Your task to perform on an android device: What's on my calendar today? Image 0: 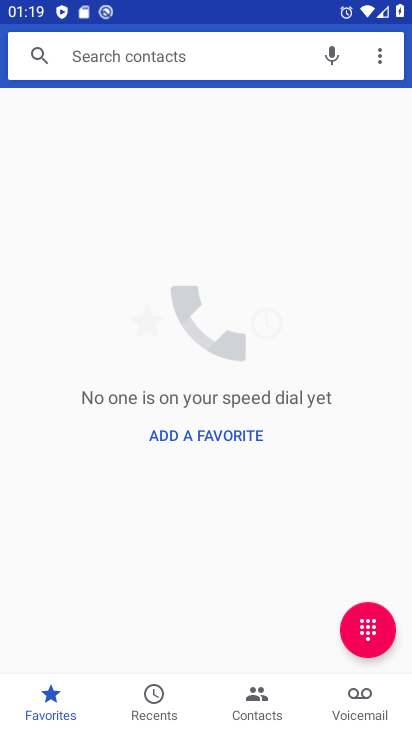
Step 0: press home button
Your task to perform on an android device: What's on my calendar today? Image 1: 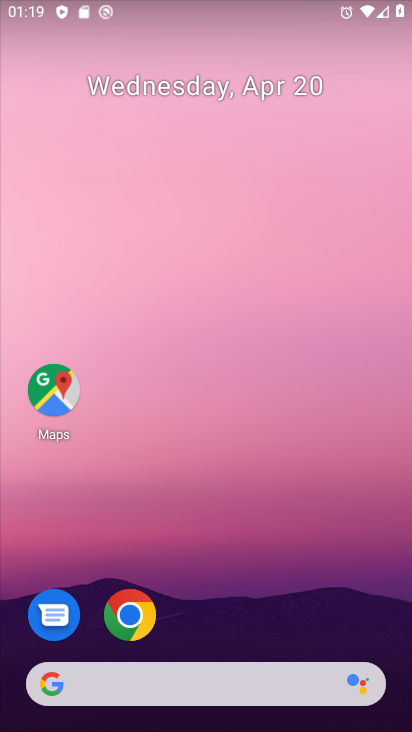
Step 1: drag from (396, 186) to (390, 105)
Your task to perform on an android device: What's on my calendar today? Image 2: 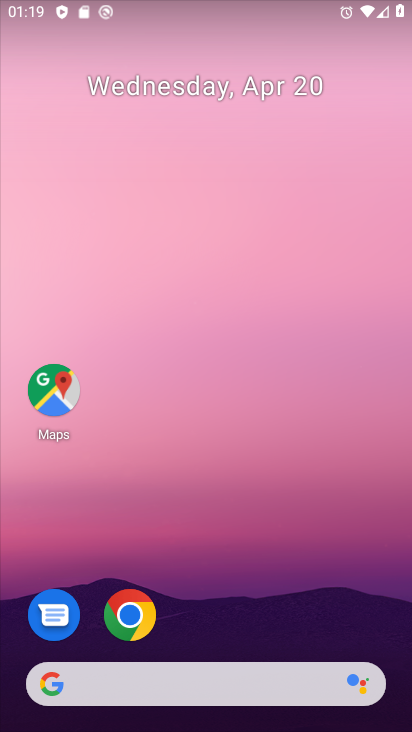
Step 2: drag from (350, 497) to (337, 43)
Your task to perform on an android device: What's on my calendar today? Image 3: 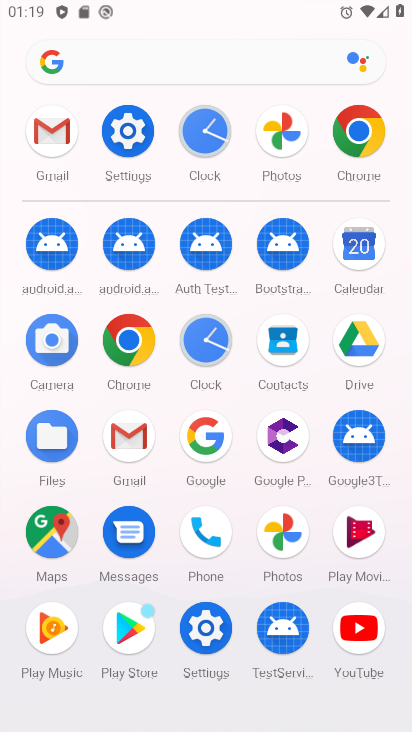
Step 3: click (360, 245)
Your task to perform on an android device: What's on my calendar today? Image 4: 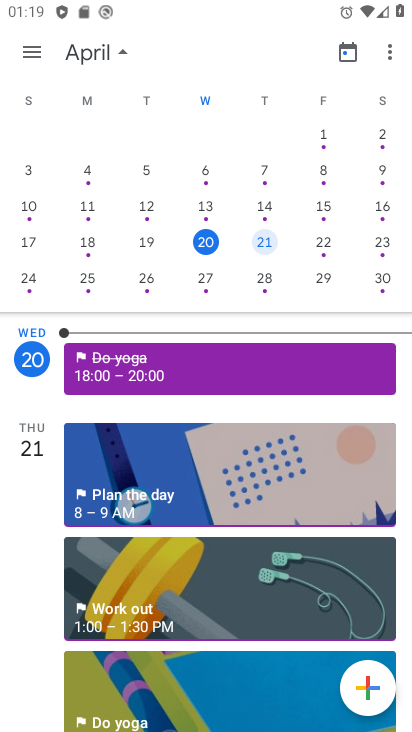
Step 4: click (203, 239)
Your task to perform on an android device: What's on my calendar today? Image 5: 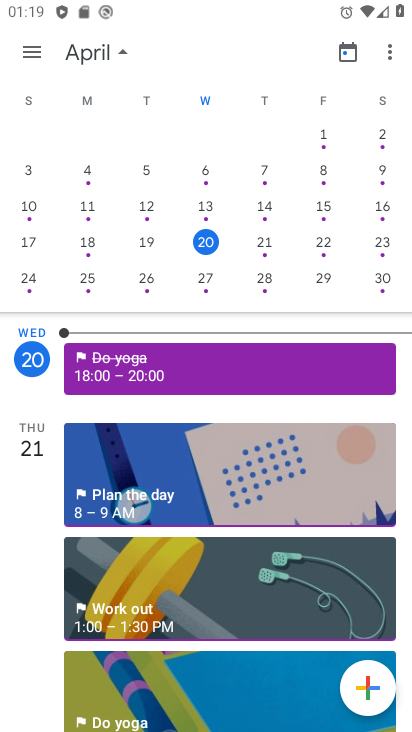
Step 5: click (203, 239)
Your task to perform on an android device: What's on my calendar today? Image 6: 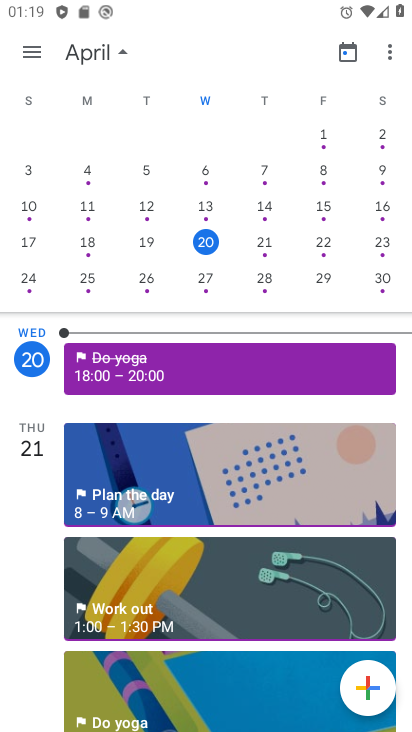
Step 6: task complete